Your task to perform on an android device: turn on wifi Image 0: 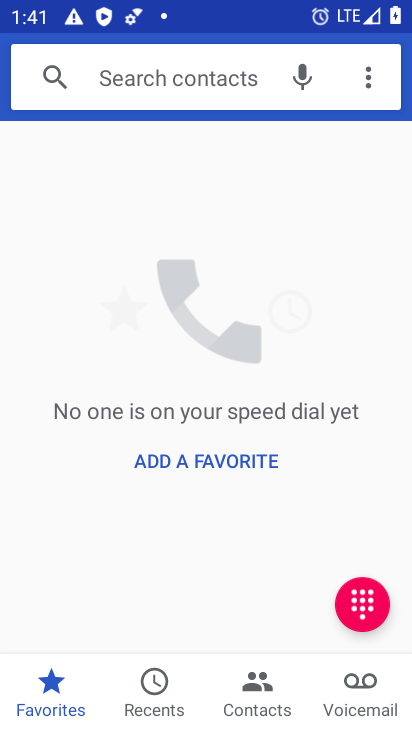
Step 0: press home button
Your task to perform on an android device: turn on wifi Image 1: 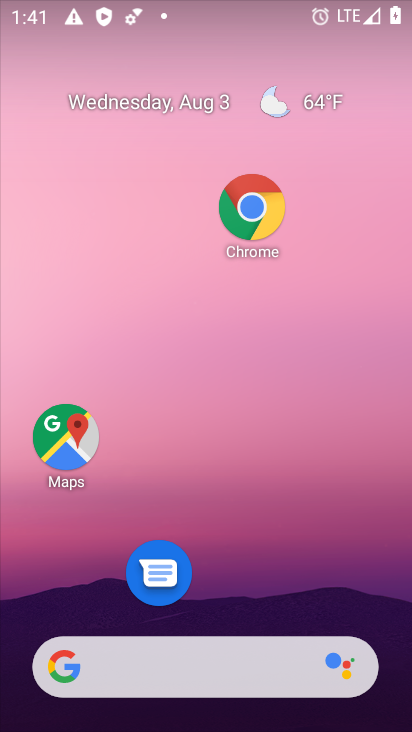
Step 1: drag from (179, 663) to (229, 191)
Your task to perform on an android device: turn on wifi Image 2: 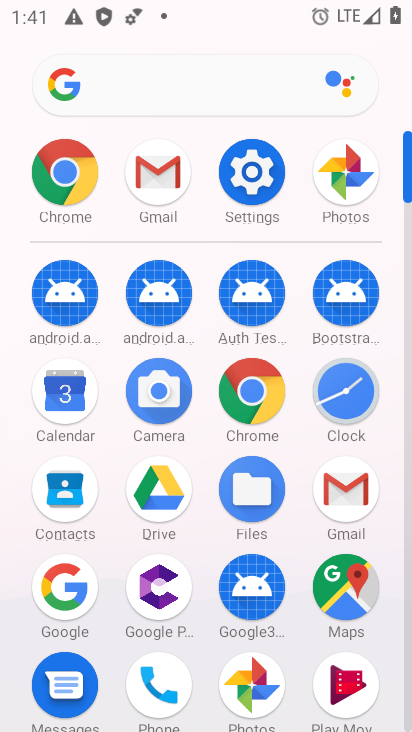
Step 2: click (250, 172)
Your task to perform on an android device: turn on wifi Image 3: 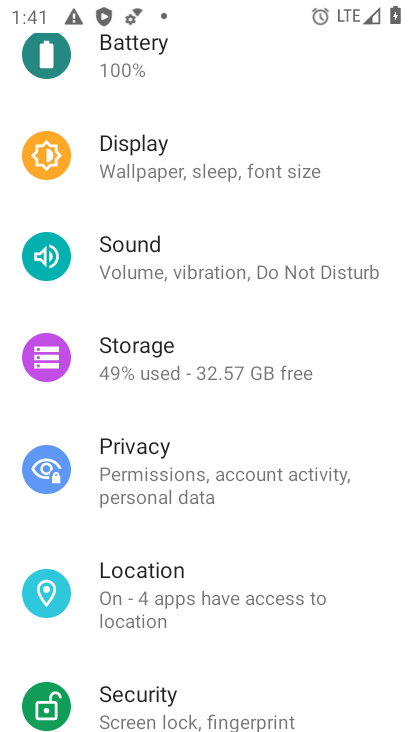
Step 3: drag from (240, 229) to (146, 657)
Your task to perform on an android device: turn on wifi Image 4: 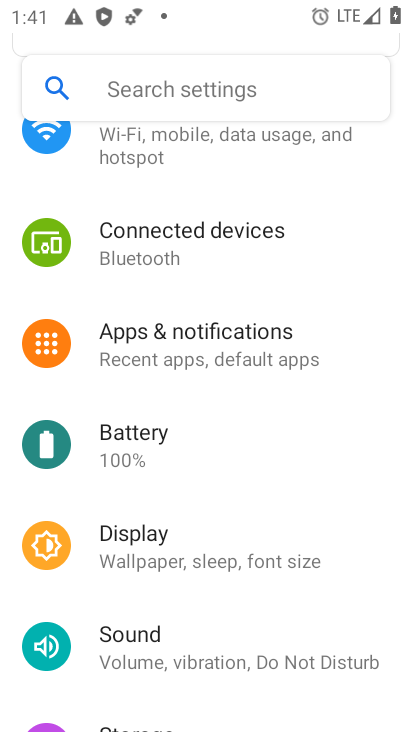
Step 4: drag from (193, 311) to (153, 625)
Your task to perform on an android device: turn on wifi Image 5: 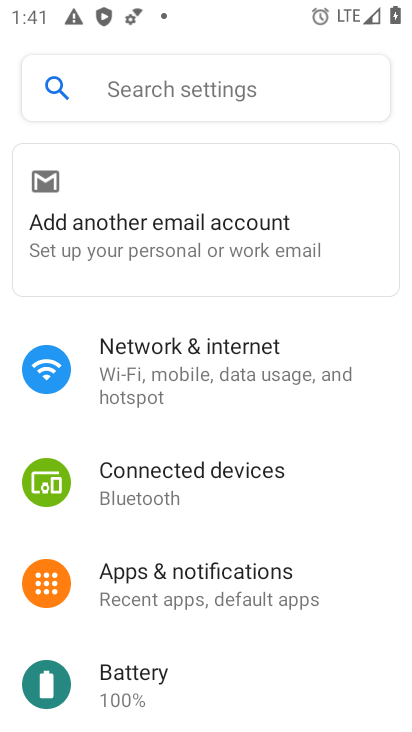
Step 5: click (193, 351)
Your task to perform on an android device: turn on wifi Image 6: 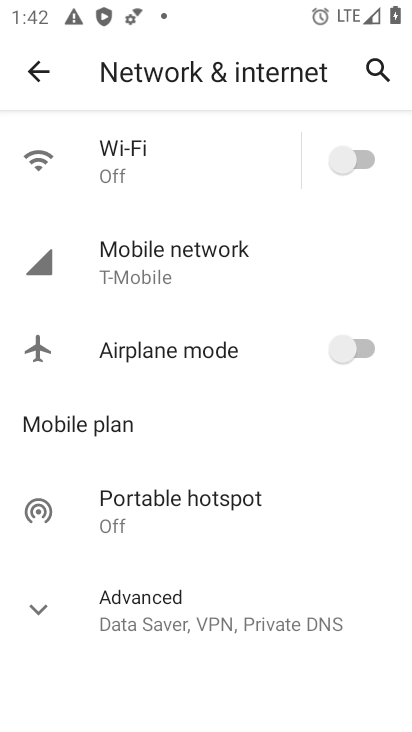
Step 6: click (358, 159)
Your task to perform on an android device: turn on wifi Image 7: 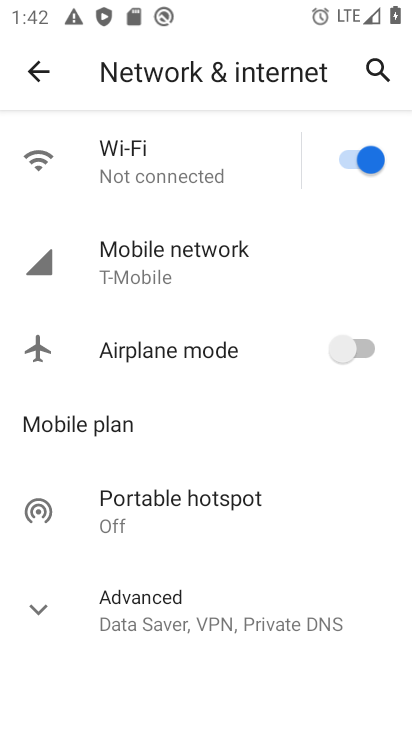
Step 7: task complete